Your task to perform on an android device: Is it going to rain today? Image 0: 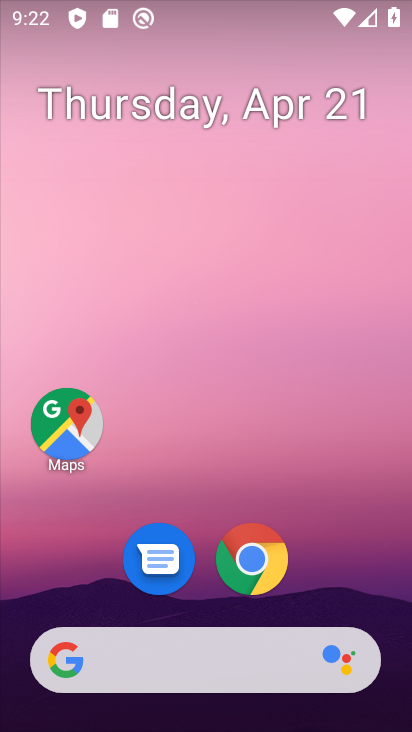
Step 0: drag from (77, 247) to (407, 203)
Your task to perform on an android device: Is it going to rain today? Image 1: 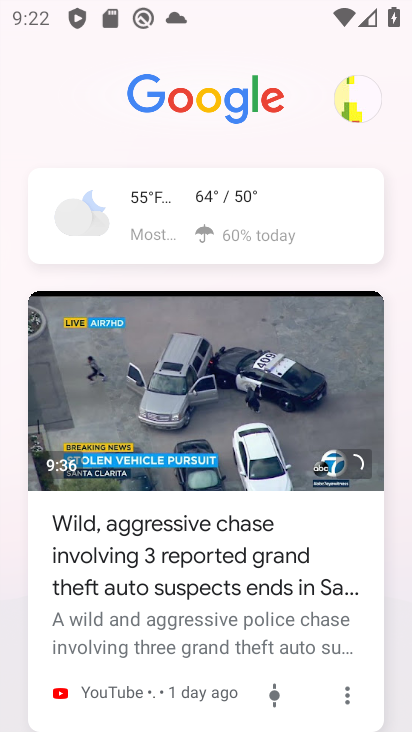
Step 1: click (253, 211)
Your task to perform on an android device: Is it going to rain today? Image 2: 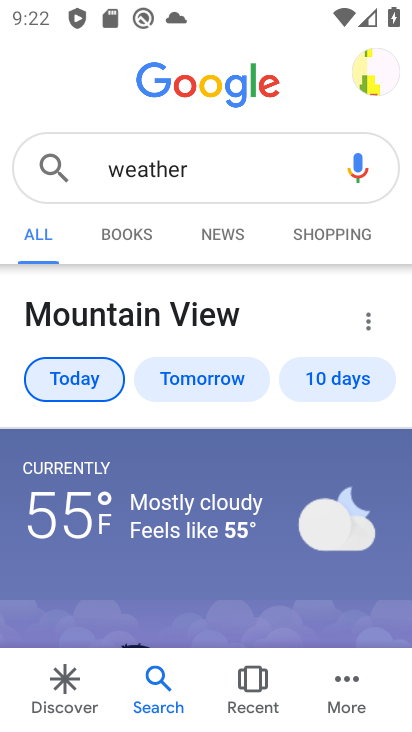
Step 2: task complete